Your task to perform on an android device: Show me recent news Image 0: 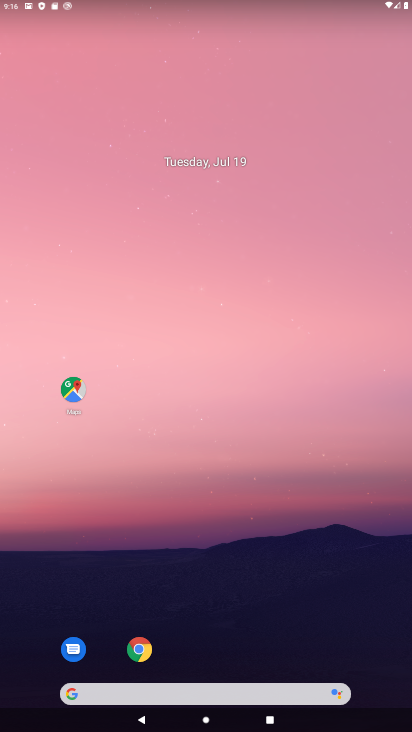
Step 0: drag from (322, 697) to (212, 48)
Your task to perform on an android device: Show me recent news Image 1: 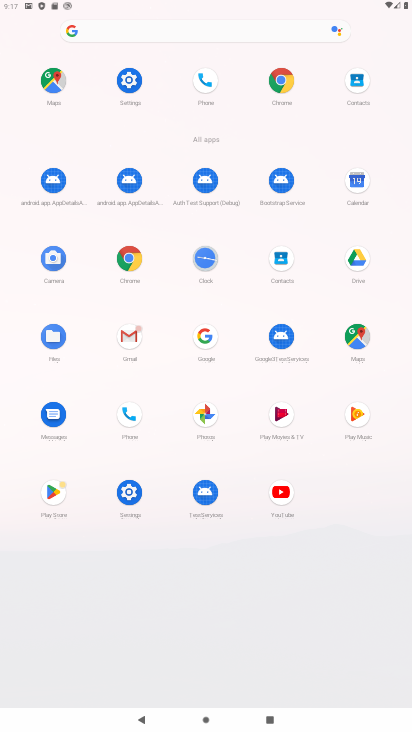
Step 1: click (215, 341)
Your task to perform on an android device: Show me recent news Image 2: 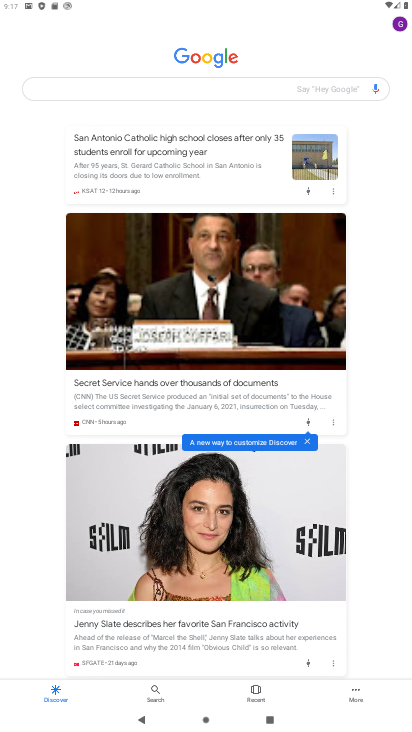
Step 2: click (94, 80)
Your task to perform on an android device: Show me recent news Image 3: 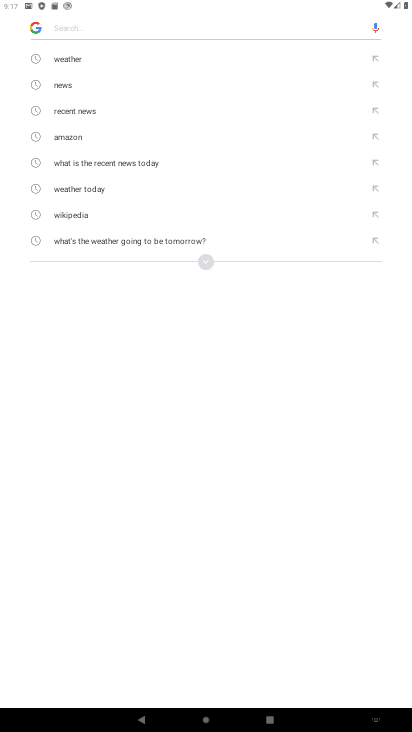
Step 3: type "Show me recent news"
Your task to perform on an android device: Show me recent news Image 4: 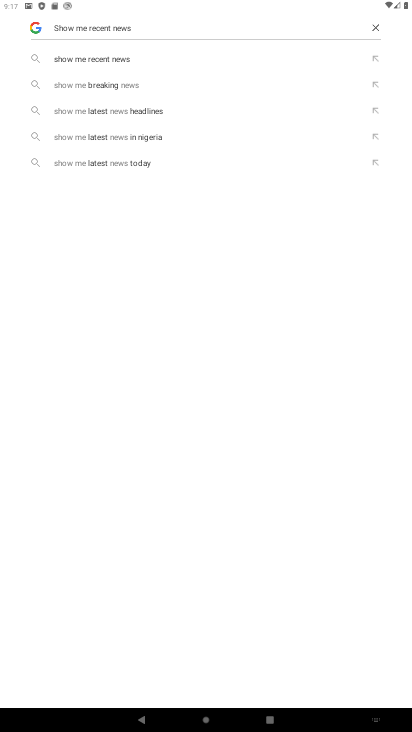
Step 4: click (68, 59)
Your task to perform on an android device: Show me recent news Image 5: 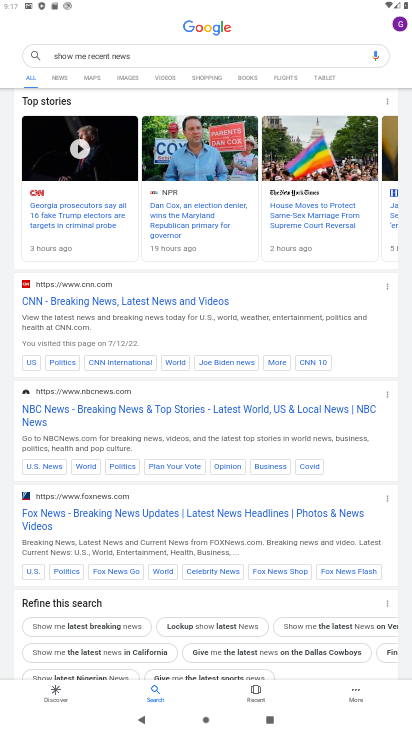
Step 5: task complete